Your task to perform on an android device: Check the news Image 0: 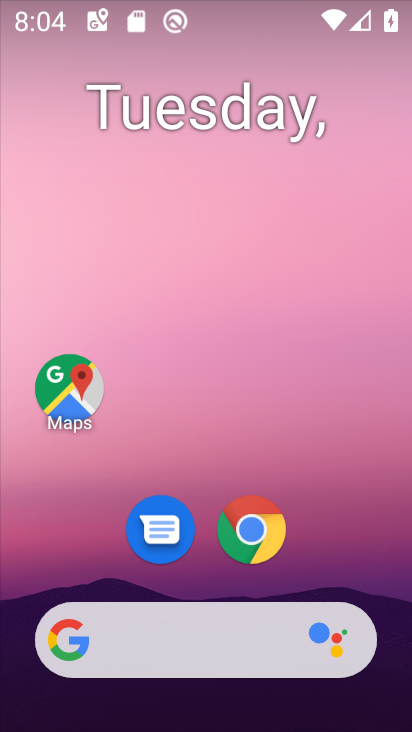
Step 0: click (163, 638)
Your task to perform on an android device: Check the news Image 1: 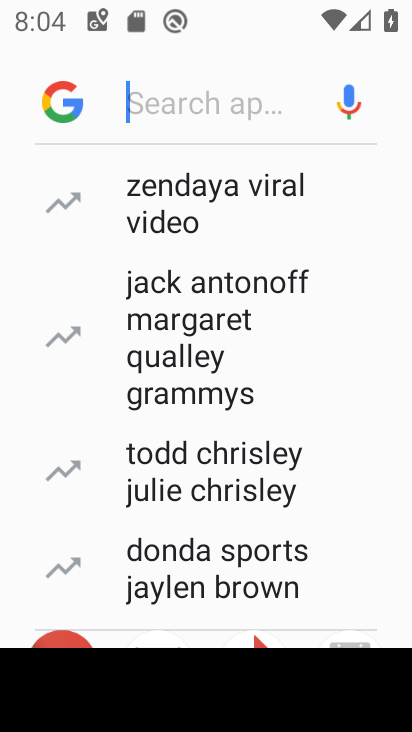
Step 1: press back button
Your task to perform on an android device: Check the news Image 2: 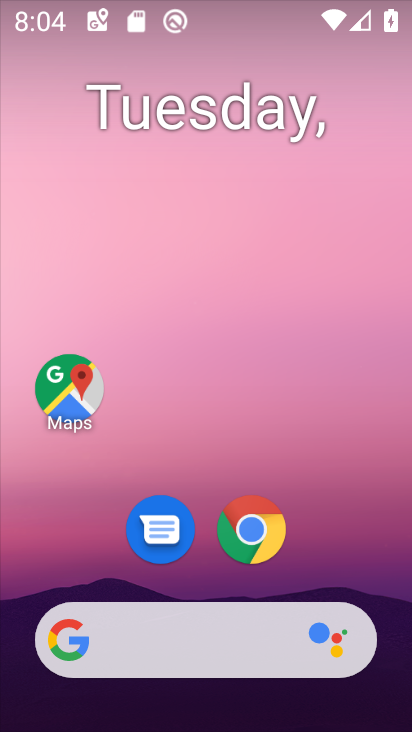
Step 2: click (188, 651)
Your task to perform on an android device: Check the news Image 3: 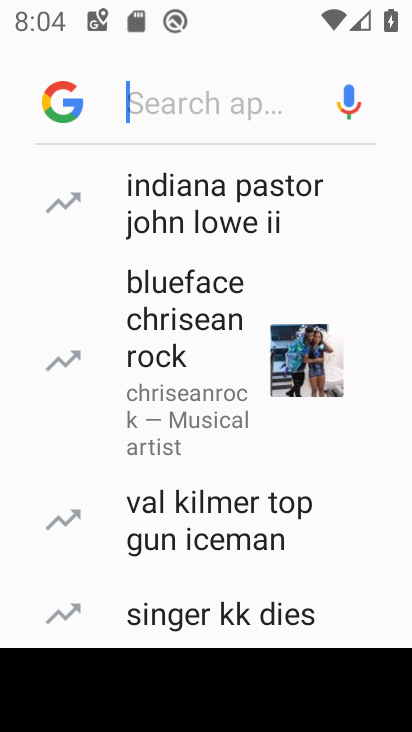
Step 3: type "news"
Your task to perform on an android device: Check the news Image 4: 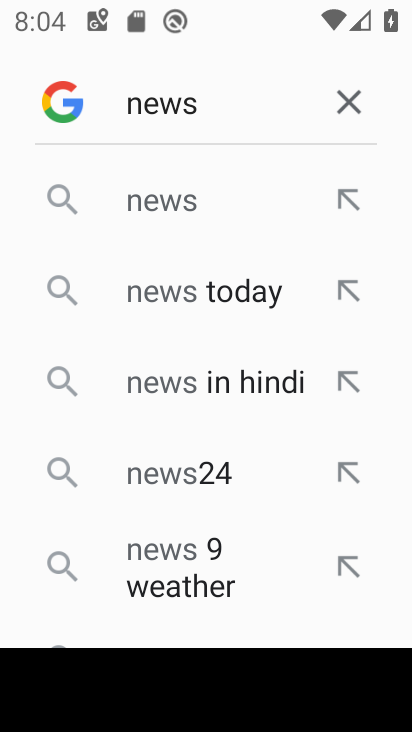
Step 4: click (217, 206)
Your task to perform on an android device: Check the news Image 5: 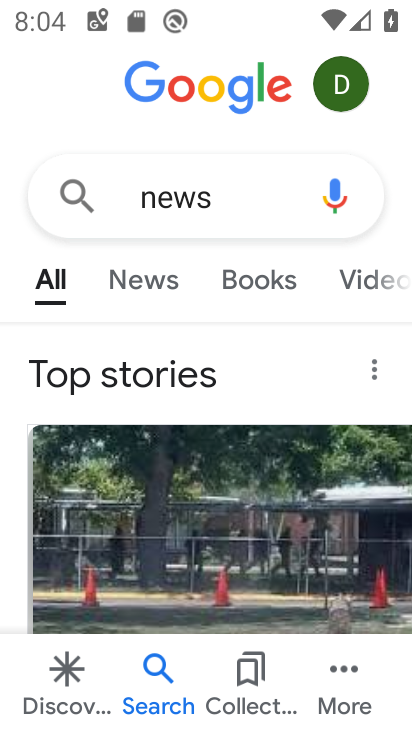
Step 5: task complete